Your task to perform on an android device: Show me popular videos on Youtube Image 0: 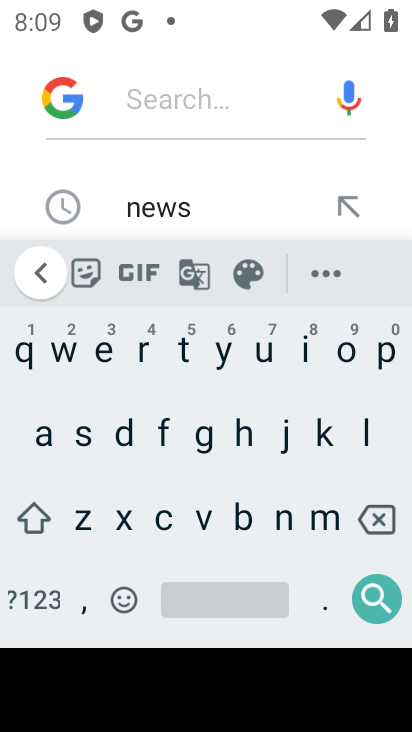
Step 0: press home button
Your task to perform on an android device: Show me popular videos on Youtube Image 1: 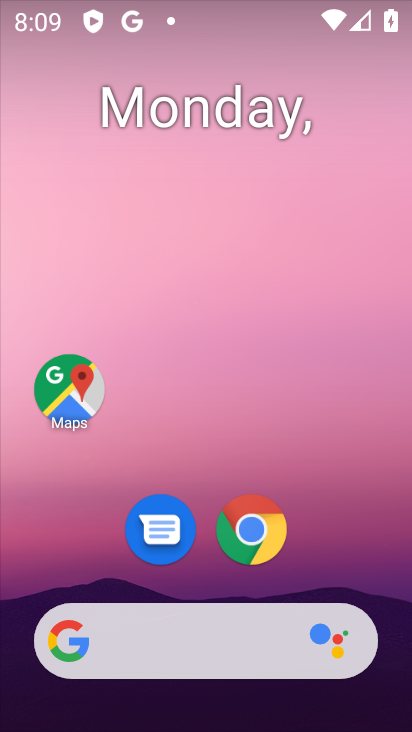
Step 1: press home button
Your task to perform on an android device: Show me popular videos on Youtube Image 2: 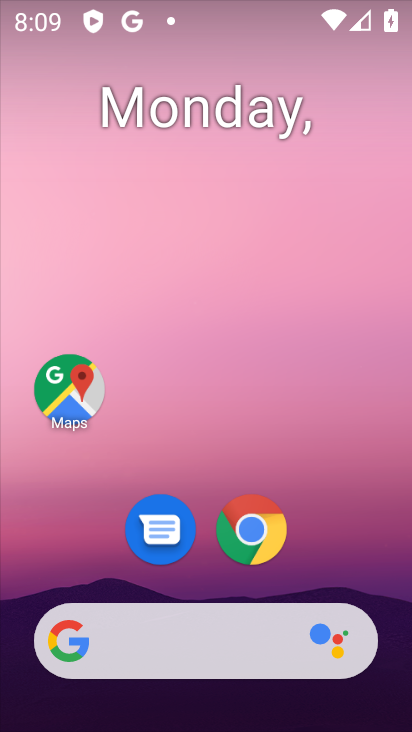
Step 2: press home button
Your task to perform on an android device: Show me popular videos on Youtube Image 3: 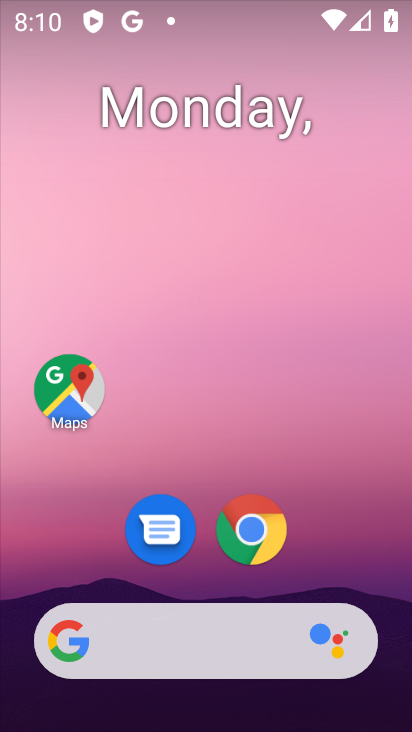
Step 3: drag from (327, 622) to (288, 237)
Your task to perform on an android device: Show me popular videos on Youtube Image 4: 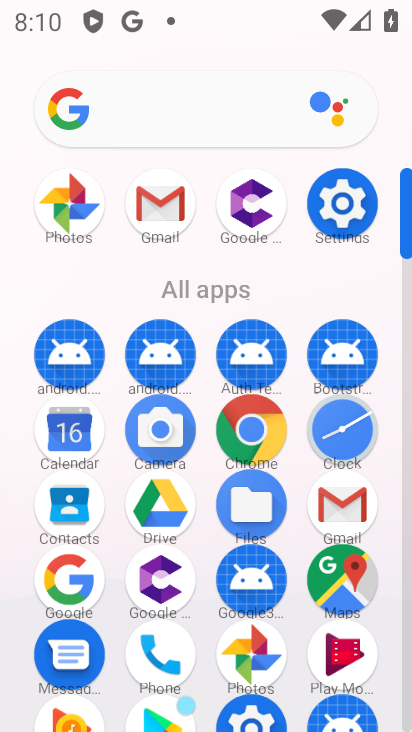
Step 4: drag from (111, 464) to (190, 209)
Your task to perform on an android device: Show me popular videos on Youtube Image 5: 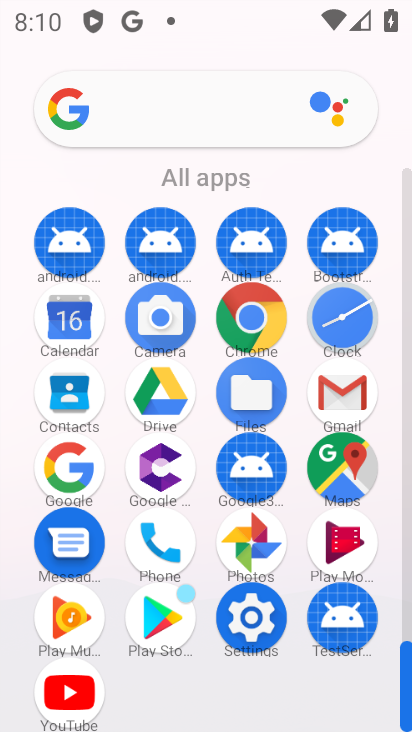
Step 5: click (70, 690)
Your task to perform on an android device: Show me popular videos on Youtube Image 6: 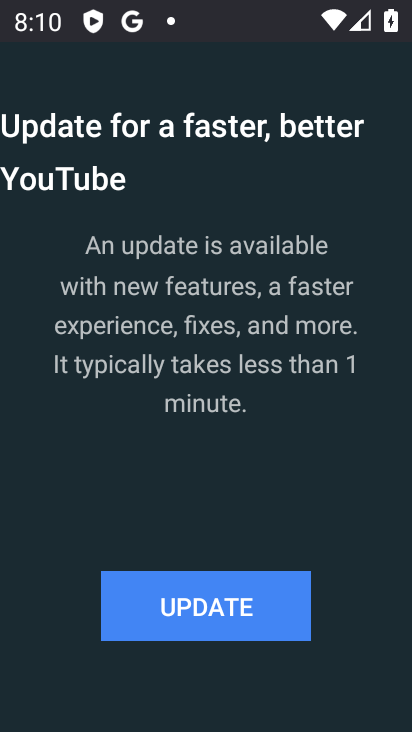
Step 6: click (193, 623)
Your task to perform on an android device: Show me popular videos on Youtube Image 7: 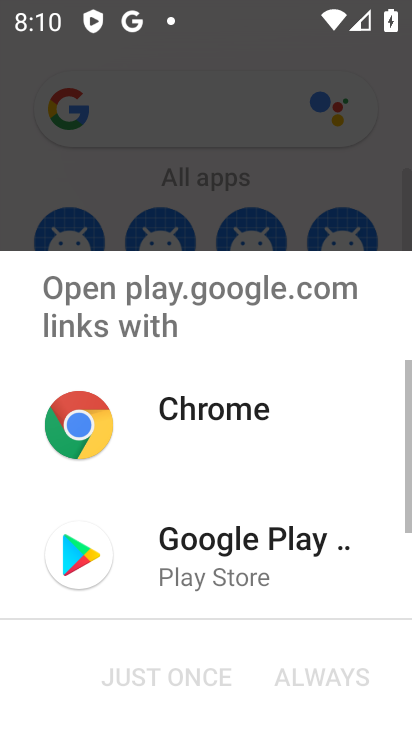
Step 7: click (202, 534)
Your task to perform on an android device: Show me popular videos on Youtube Image 8: 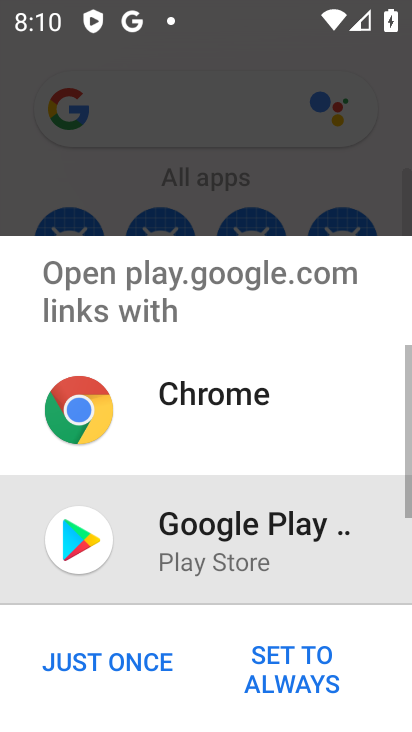
Step 8: click (153, 676)
Your task to perform on an android device: Show me popular videos on Youtube Image 9: 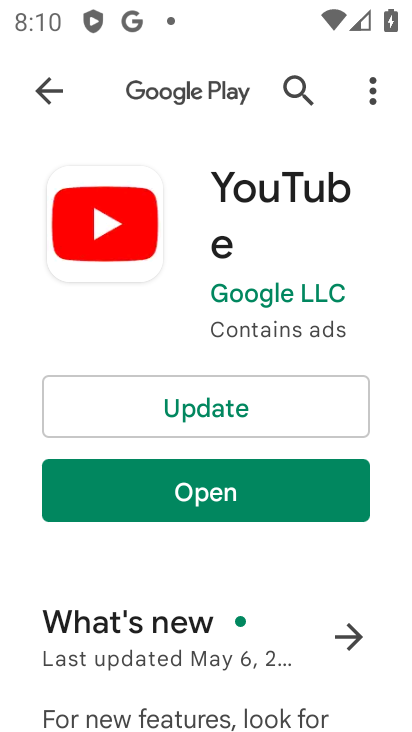
Step 9: click (250, 401)
Your task to perform on an android device: Show me popular videos on Youtube Image 10: 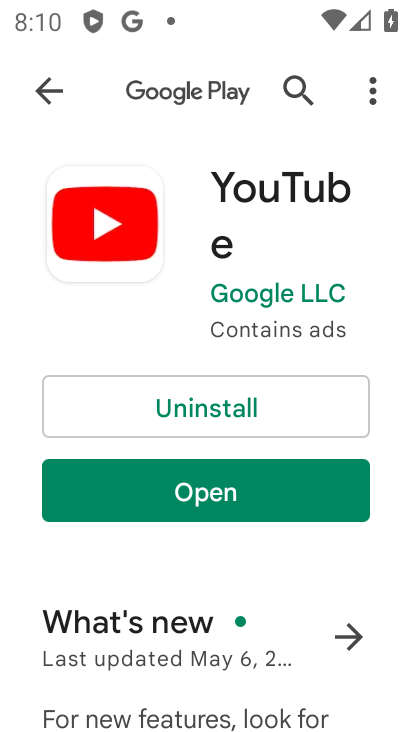
Step 10: click (208, 490)
Your task to perform on an android device: Show me popular videos on Youtube Image 11: 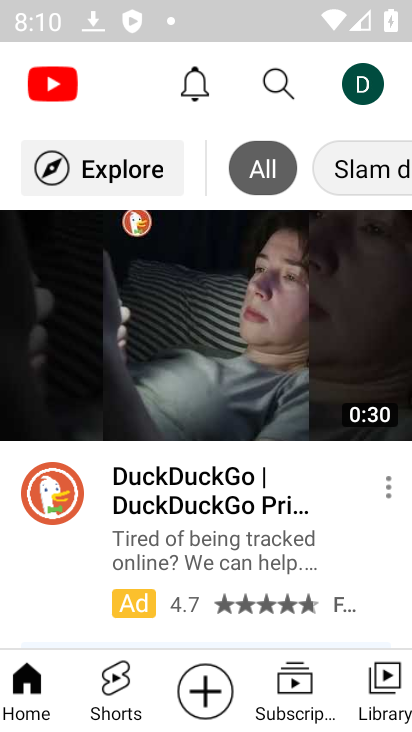
Step 11: click (266, 76)
Your task to perform on an android device: Show me popular videos on Youtube Image 12: 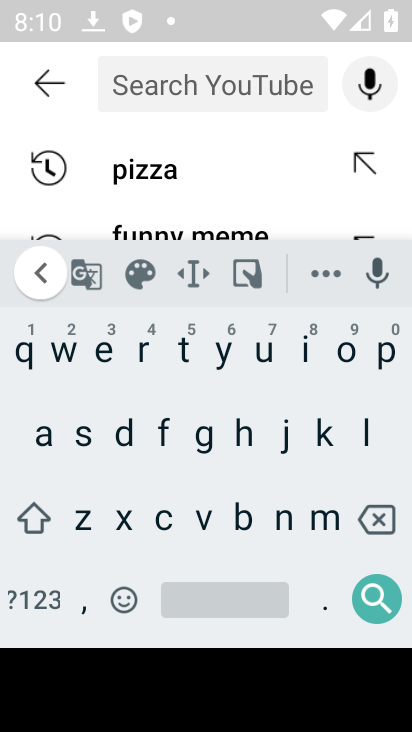
Step 12: click (368, 358)
Your task to perform on an android device: Show me popular videos on Youtube Image 13: 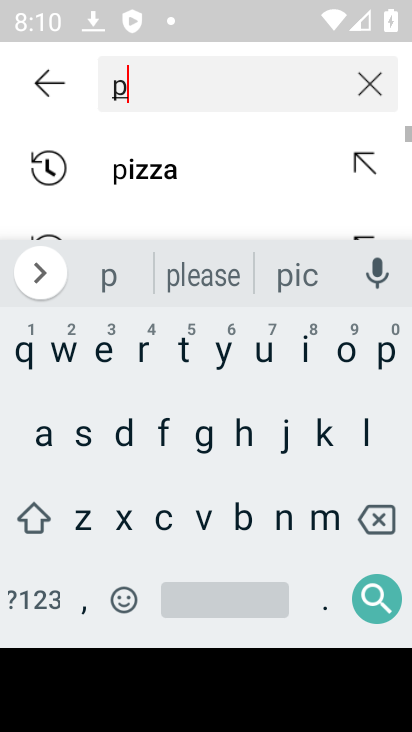
Step 13: click (347, 362)
Your task to perform on an android device: Show me popular videos on Youtube Image 14: 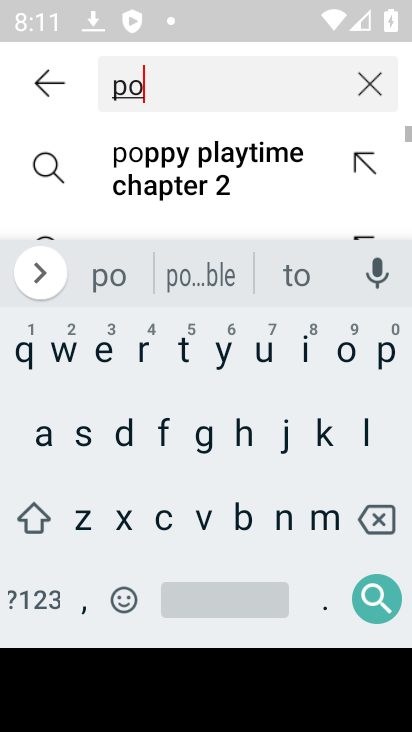
Step 14: click (391, 358)
Your task to perform on an android device: Show me popular videos on Youtube Image 15: 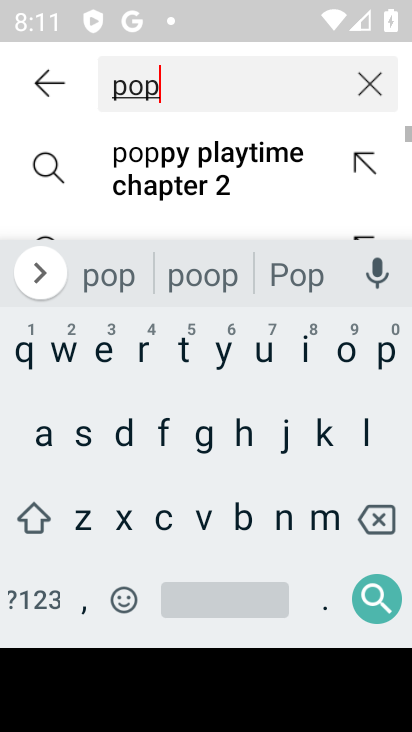
Step 15: click (259, 366)
Your task to perform on an android device: Show me popular videos on Youtube Image 16: 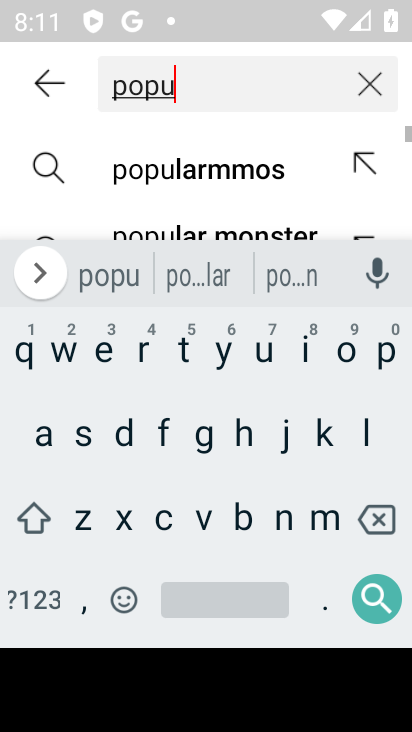
Step 16: click (192, 280)
Your task to perform on an android device: Show me popular videos on Youtube Image 17: 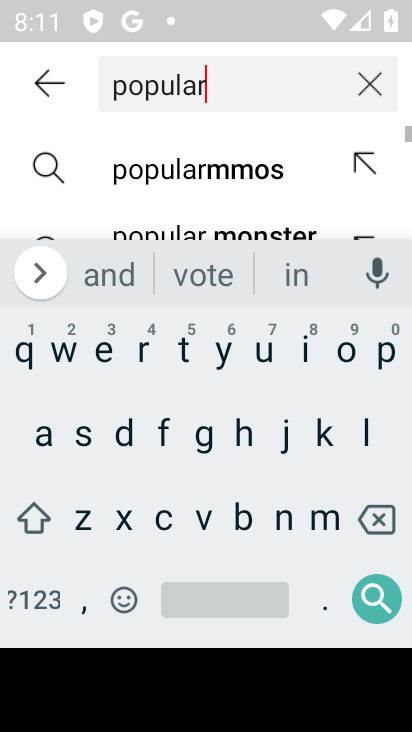
Step 17: click (196, 514)
Your task to perform on an android device: Show me popular videos on Youtube Image 18: 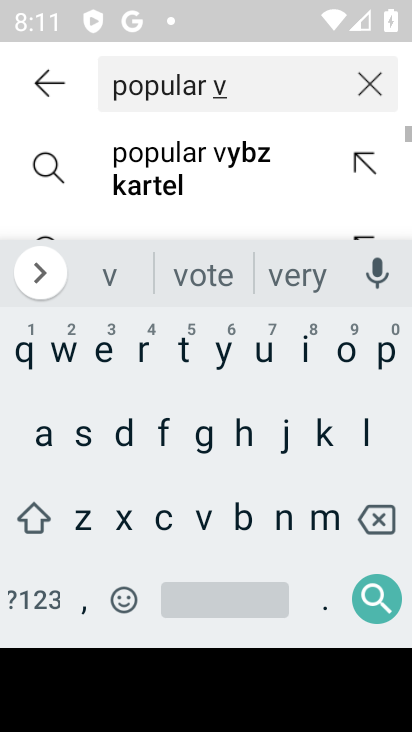
Step 18: click (304, 354)
Your task to perform on an android device: Show me popular videos on Youtube Image 19: 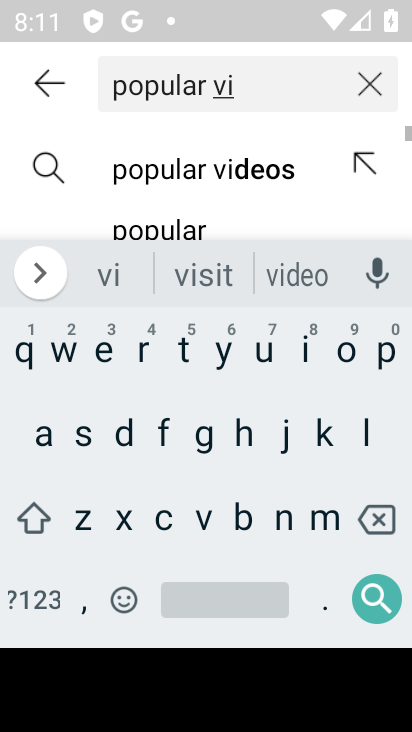
Step 19: click (118, 435)
Your task to perform on an android device: Show me popular videos on Youtube Image 20: 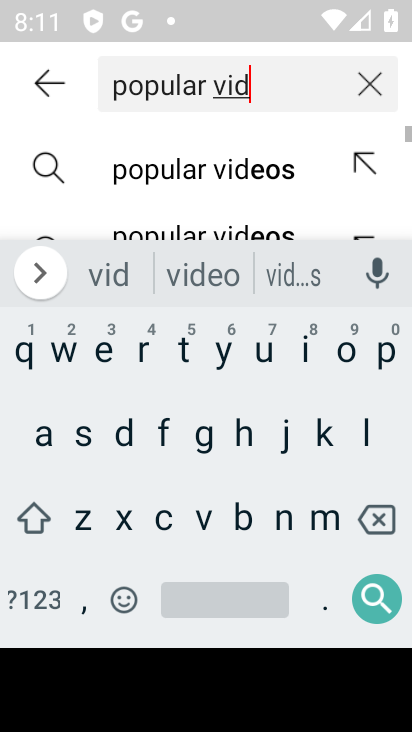
Step 20: click (257, 168)
Your task to perform on an android device: Show me popular videos on Youtube Image 21: 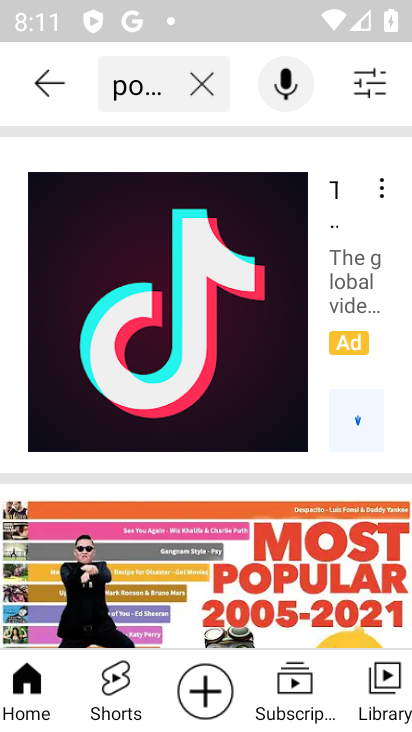
Step 21: task complete